Your task to perform on an android device: Open privacy settings Image 0: 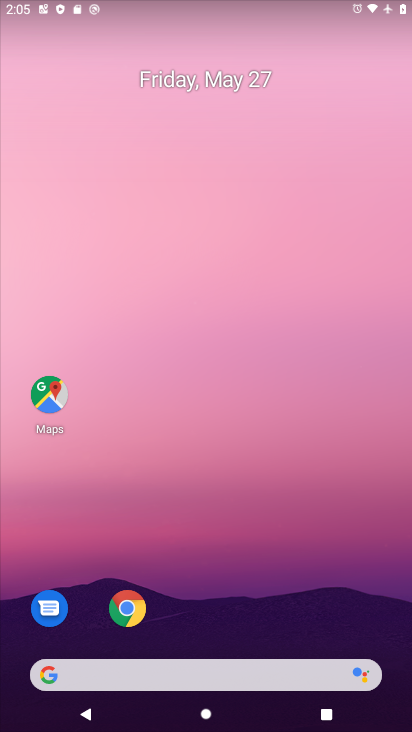
Step 0: press home button
Your task to perform on an android device: Open privacy settings Image 1: 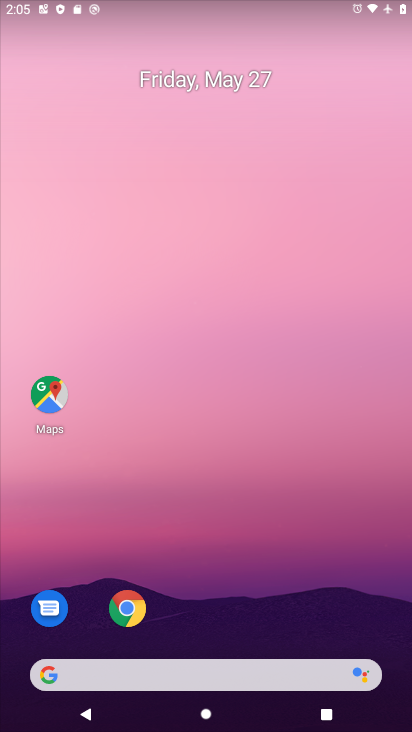
Step 1: drag from (133, 677) to (294, 86)
Your task to perform on an android device: Open privacy settings Image 2: 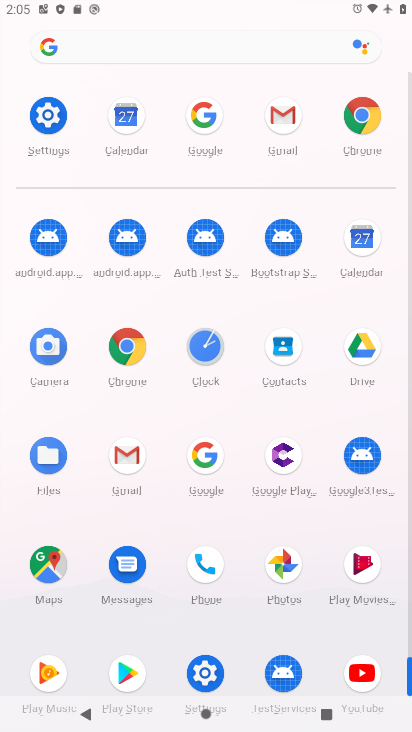
Step 2: click (50, 114)
Your task to perform on an android device: Open privacy settings Image 3: 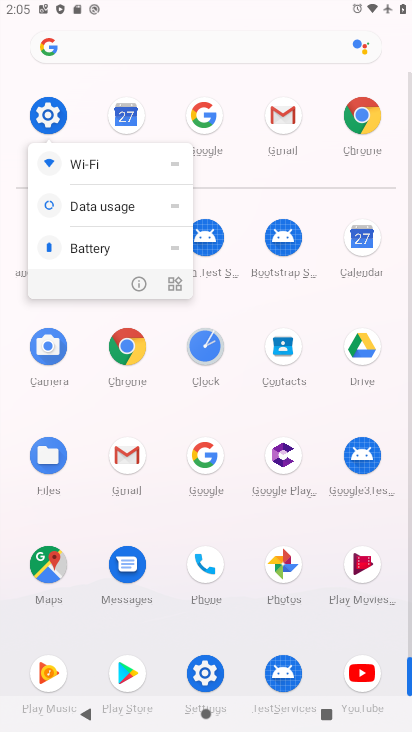
Step 3: click (51, 116)
Your task to perform on an android device: Open privacy settings Image 4: 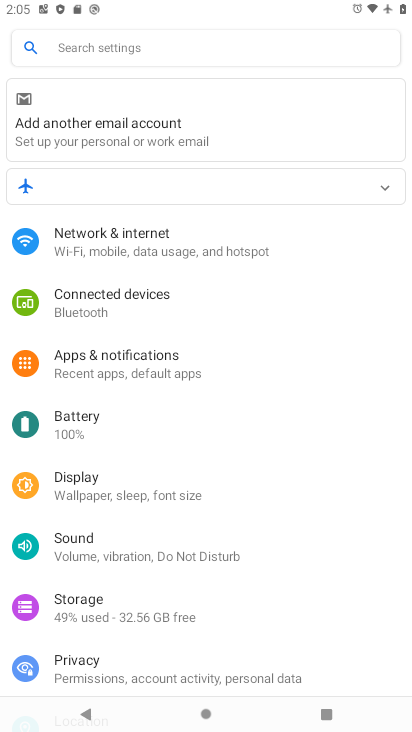
Step 4: click (107, 663)
Your task to perform on an android device: Open privacy settings Image 5: 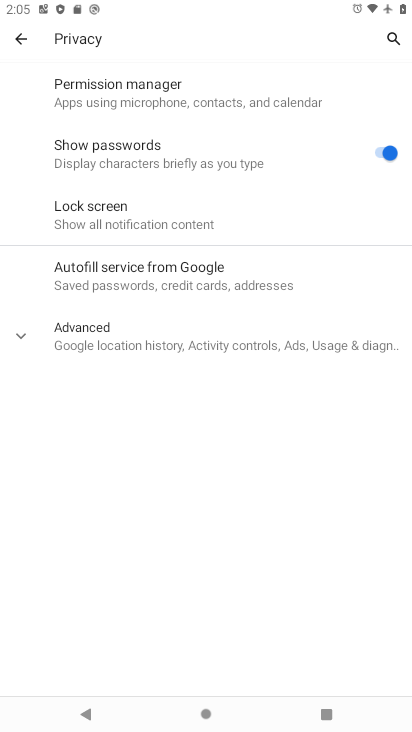
Step 5: task complete